Your task to perform on an android device: Open network settings Image 0: 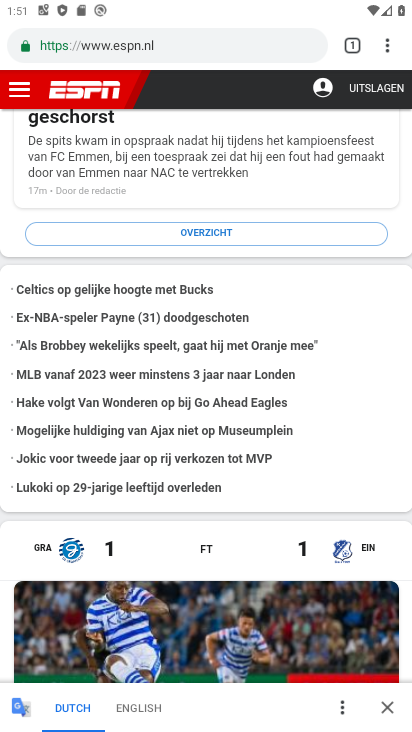
Step 0: press back button
Your task to perform on an android device: Open network settings Image 1: 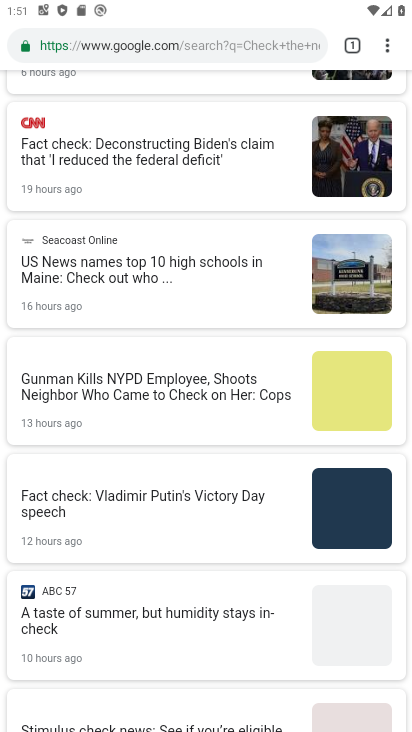
Step 1: press home button
Your task to perform on an android device: Open network settings Image 2: 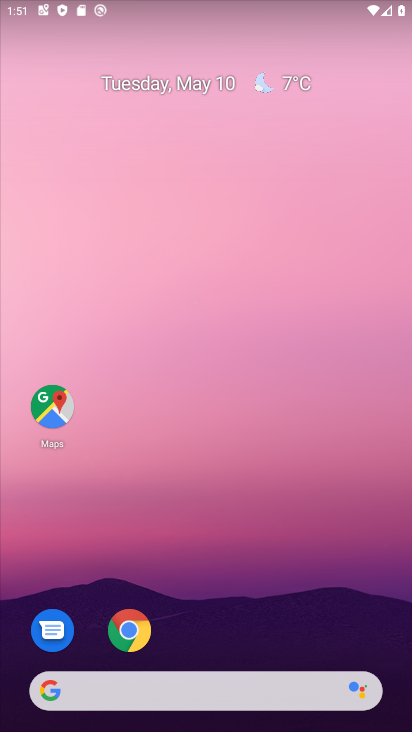
Step 2: drag from (256, 608) to (244, 3)
Your task to perform on an android device: Open network settings Image 3: 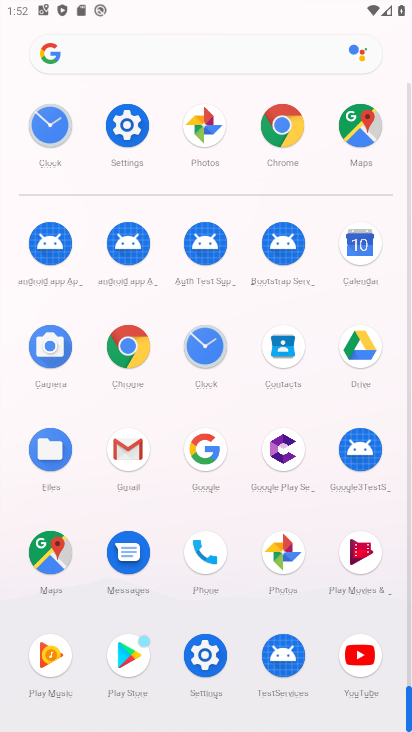
Step 3: drag from (9, 609) to (14, 309)
Your task to perform on an android device: Open network settings Image 4: 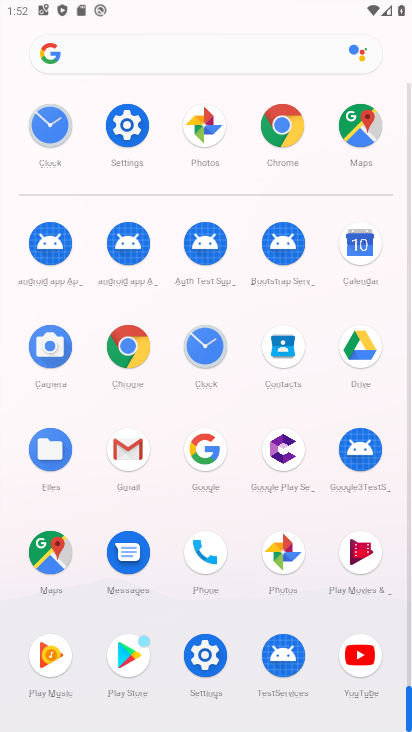
Step 4: click (129, 126)
Your task to perform on an android device: Open network settings Image 5: 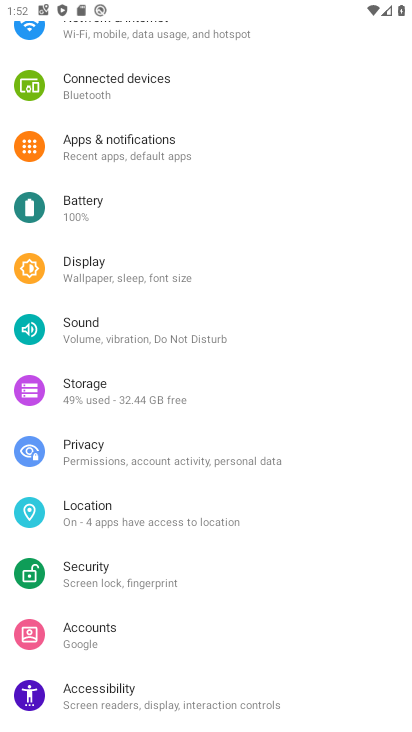
Step 5: drag from (293, 495) to (295, 90)
Your task to perform on an android device: Open network settings Image 6: 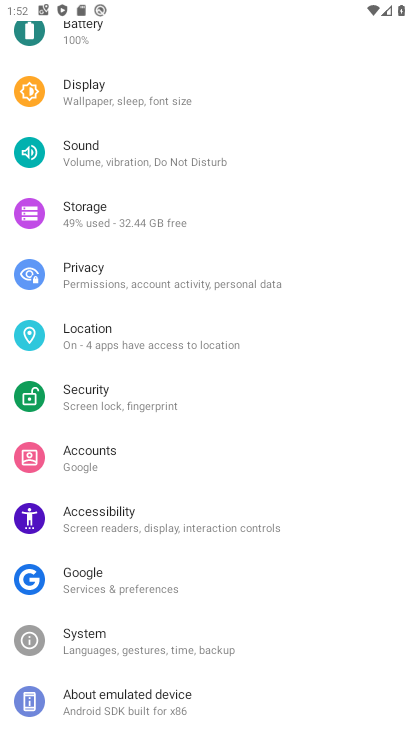
Step 6: drag from (216, 151) to (222, 546)
Your task to perform on an android device: Open network settings Image 7: 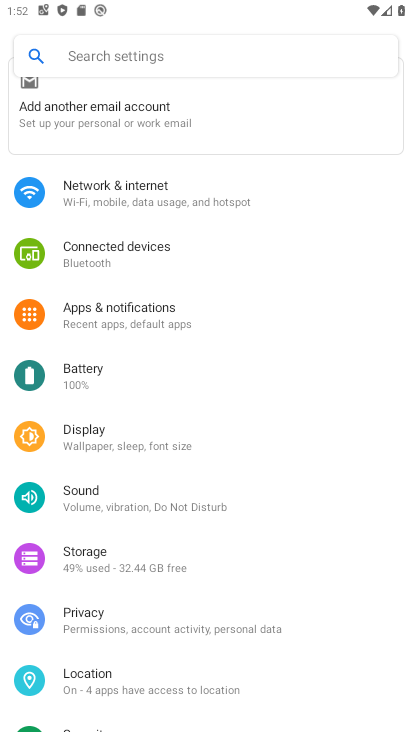
Step 7: click (162, 182)
Your task to perform on an android device: Open network settings Image 8: 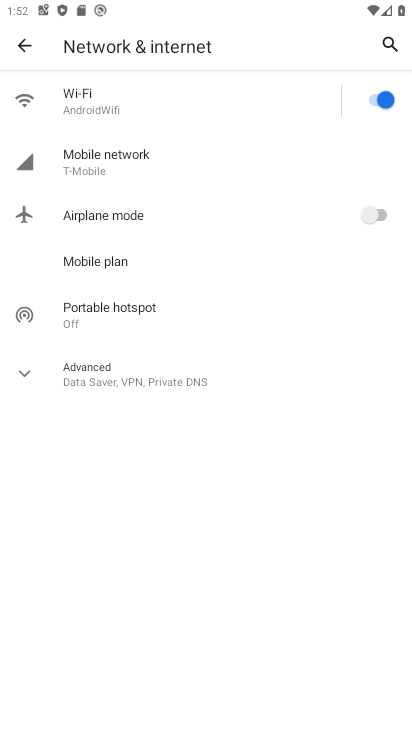
Step 8: click (38, 371)
Your task to perform on an android device: Open network settings Image 9: 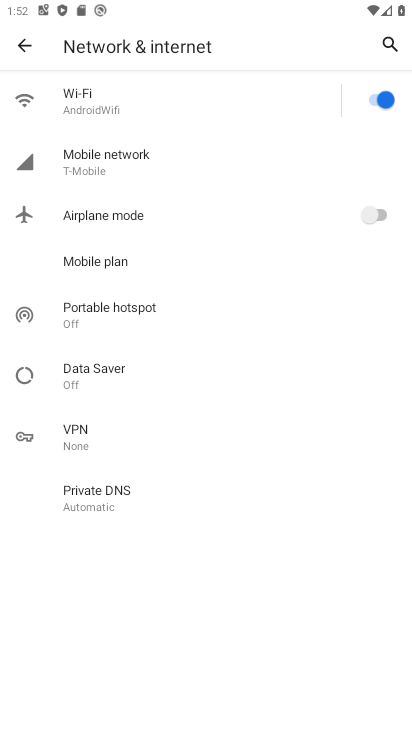
Step 9: click (122, 163)
Your task to perform on an android device: Open network settings Image 10: 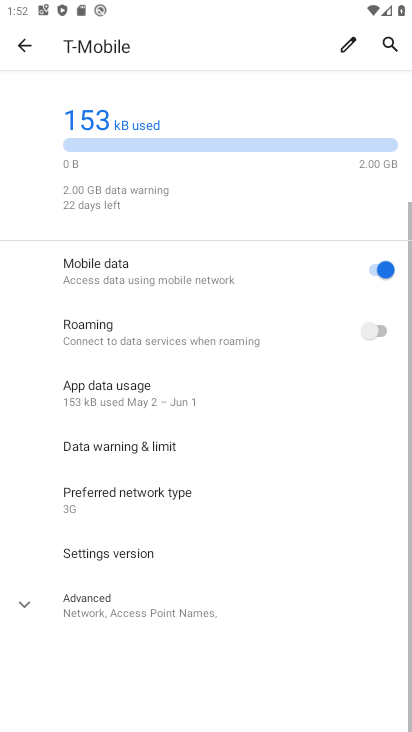
Step 10: drag from (178, 503) to (216, 64)
Your task to perform on an android device: Open network settings Image 11: 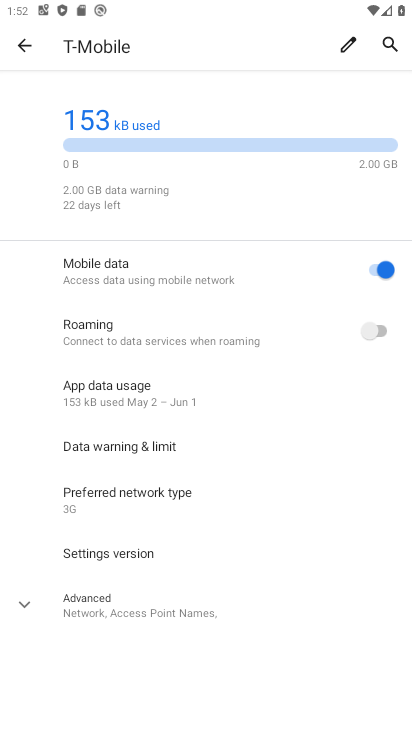
Step 11: click (8, 45)
Your task to perform on an android device: Open network settings Image 12: 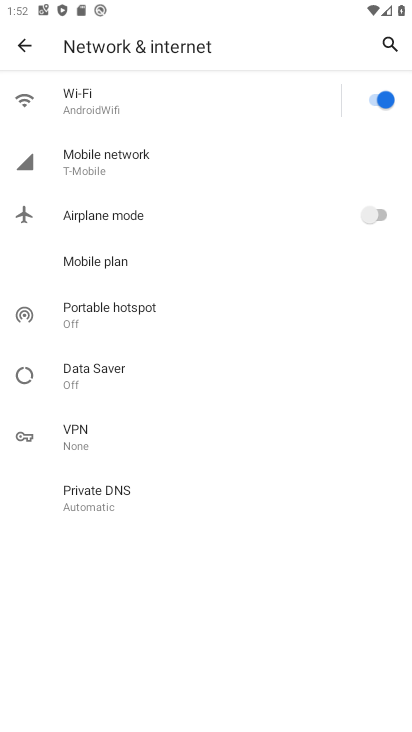
Step 12: task complete